Your task to perform on an android device: Open ESPN.com Image 0: 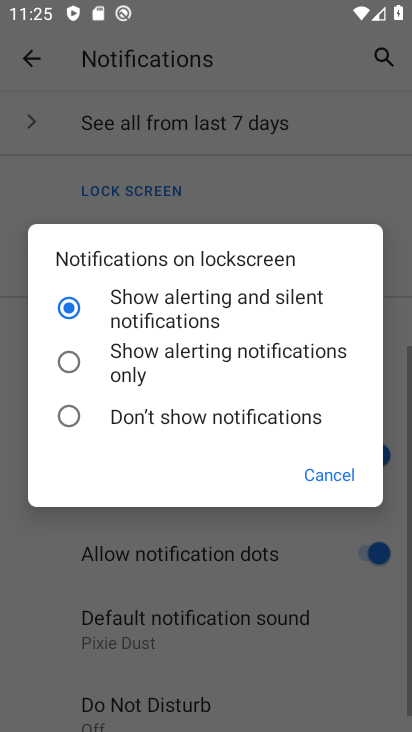
Step 0: press home button
Your task to perform on an android device: Open ESPN.com Image 1: 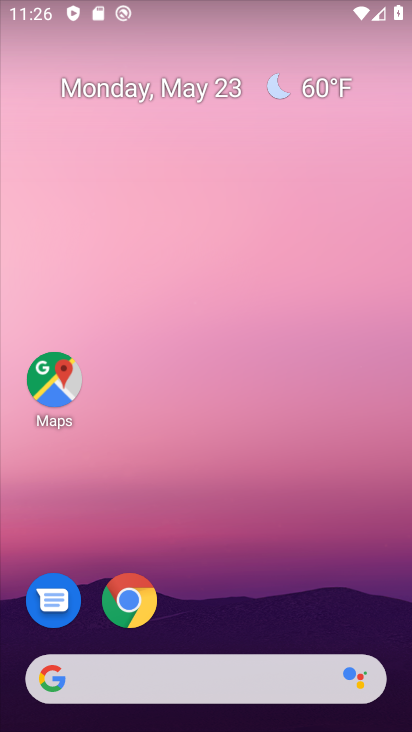
Step 1: drag from (237, 677) to (183, 13)
Your task to perform on an android device: Open ESPN.com Image 2: 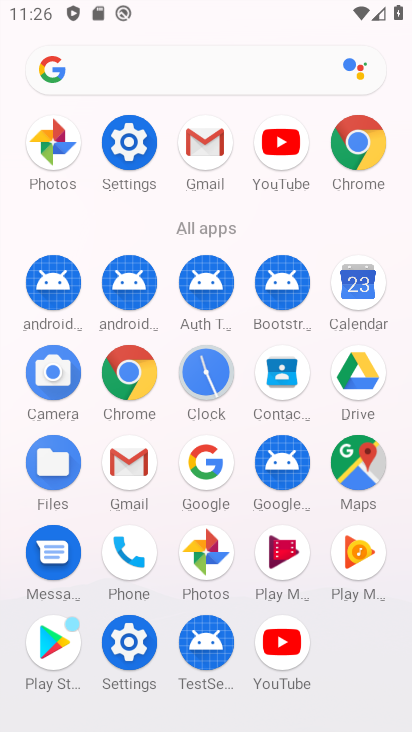
Step 2: click (364, 133)
Your task to perform on an android device: Open ESPN.com Image 3: 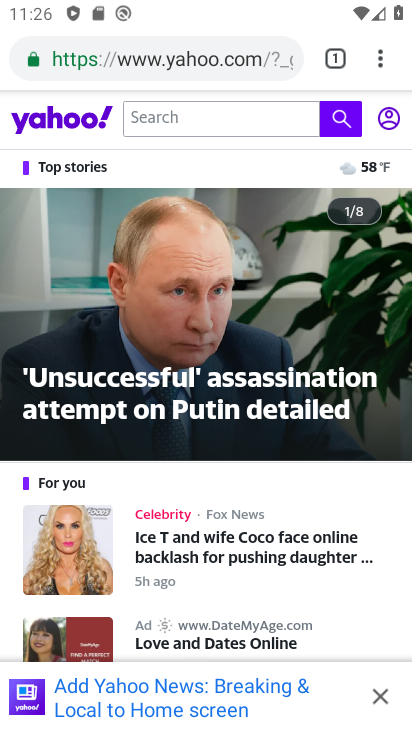
Step 3: click (171, 57)
Your task to perform on an android device: Open ESPN.com Image 4: 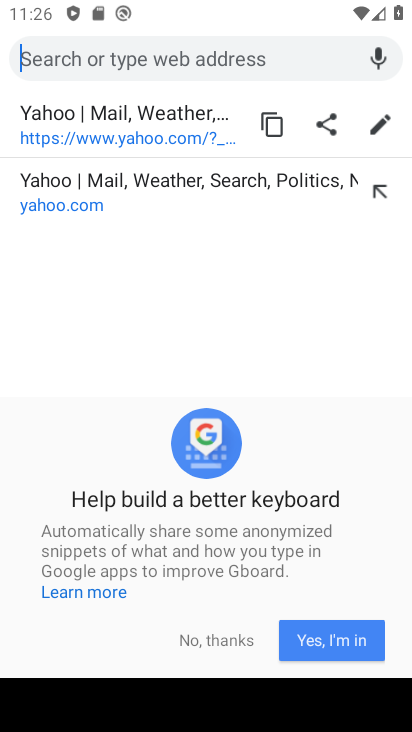
Step 4: click (210, 629)
Your task to perform on an android device: Open ESPN.com Image 5: 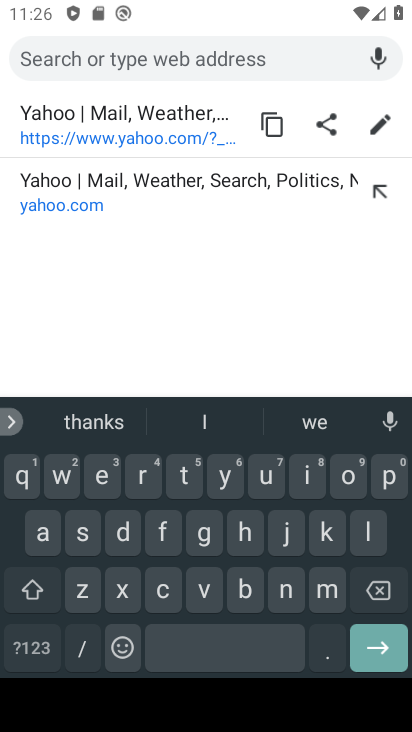
Step 5: click (97, 487)
Your task to perform on an android device: Open ESPN.com Image 6: 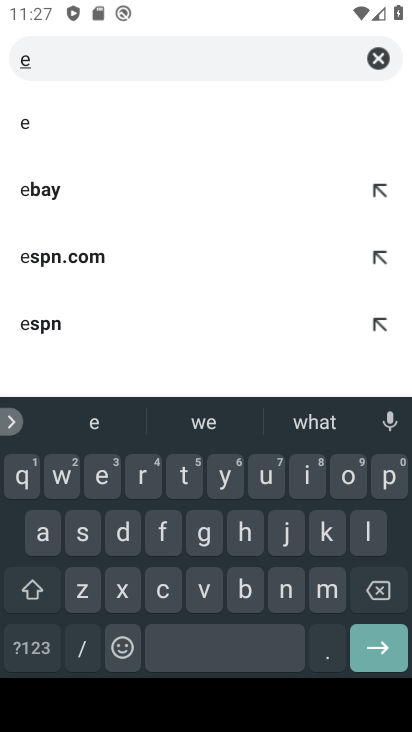
Step 6: click (85, 545)
Your task to perform on an android device: Open ESPN.com Image 7: 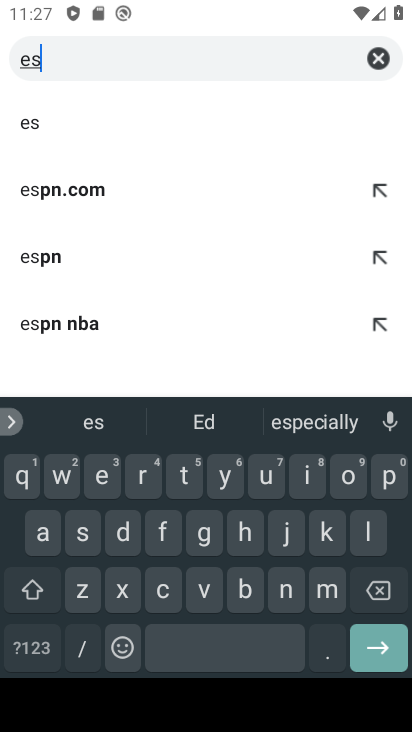
Step 7: click (91, 196)
Your task to perform on an android device: Open ESPN.com Image 8: 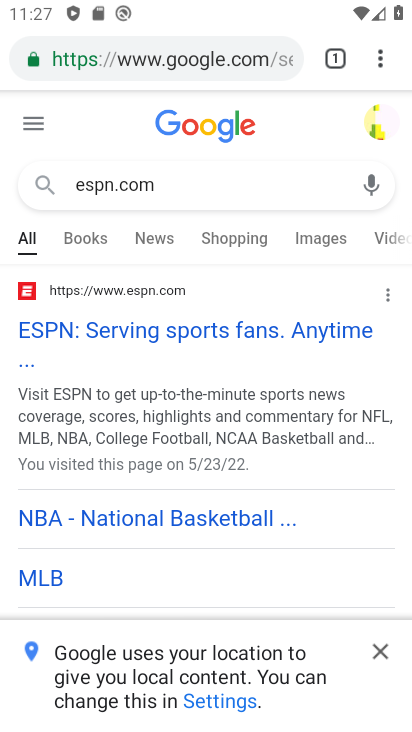
Step 8: click (135, 336)
Your task to perform on an android device: Open ESPN.com Image 9: 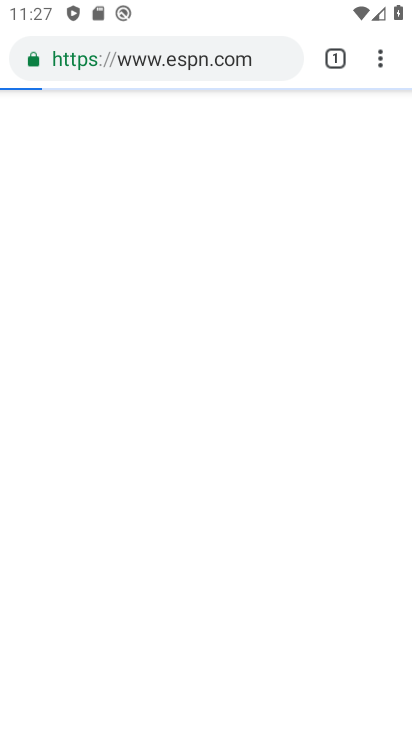
Step 9: task complete